Your task to perform on an android device: change the upload size in google photos Image 0: 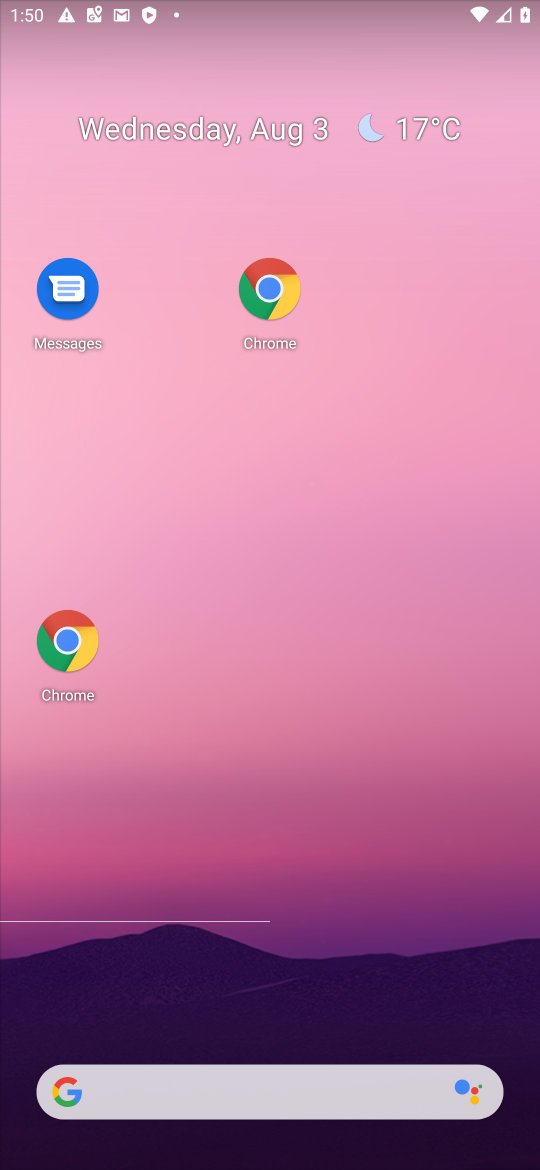
Step 0: drag from (367, 926) to (362, 422)
Your task to perform on an android device: change the upload size in google photos Image 1: 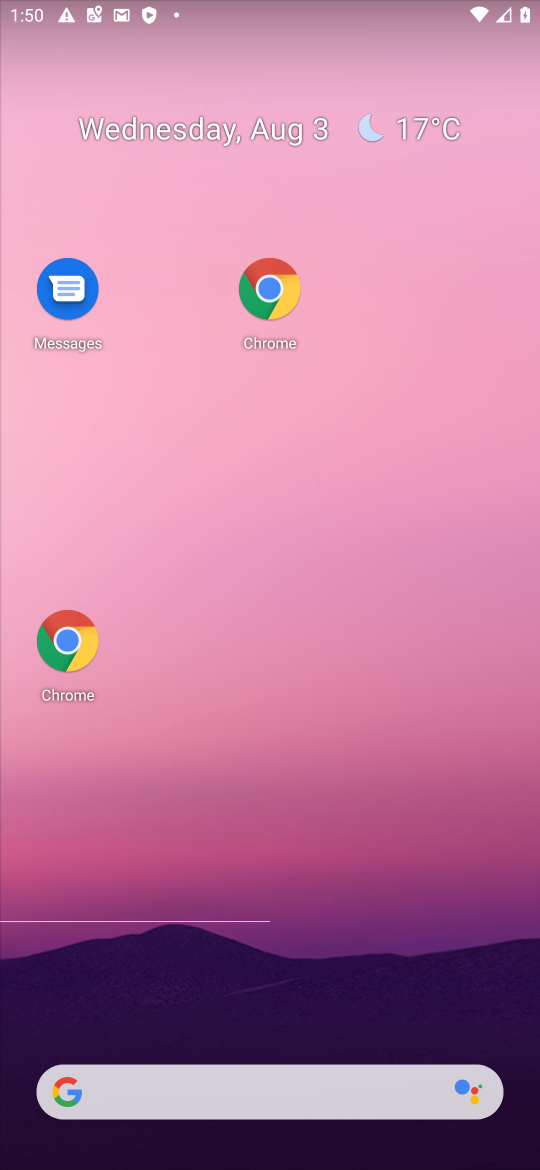
Step 1: drag from (354, 930) to (291, 194)
Your task to perform on an android device: change the upload size in google photos Image 2: 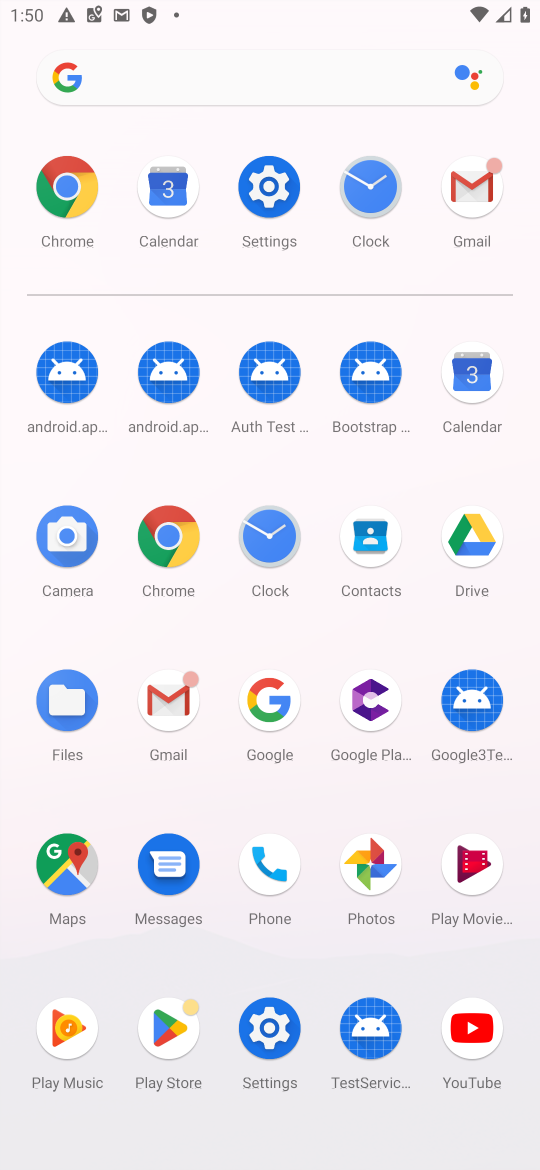
Step 2: click (347, 869)
Your task to perform on an android device: change the upload size in google photos Image 3: 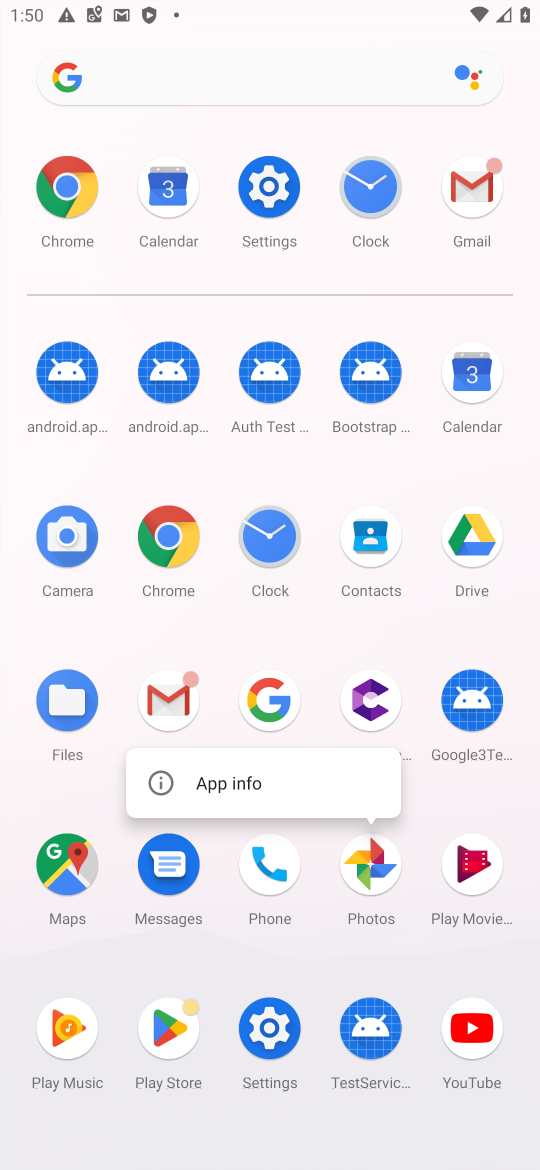
Step 3: click (347, 869)
Your task to perform on an android device: change the upload size in google photos Image 4: 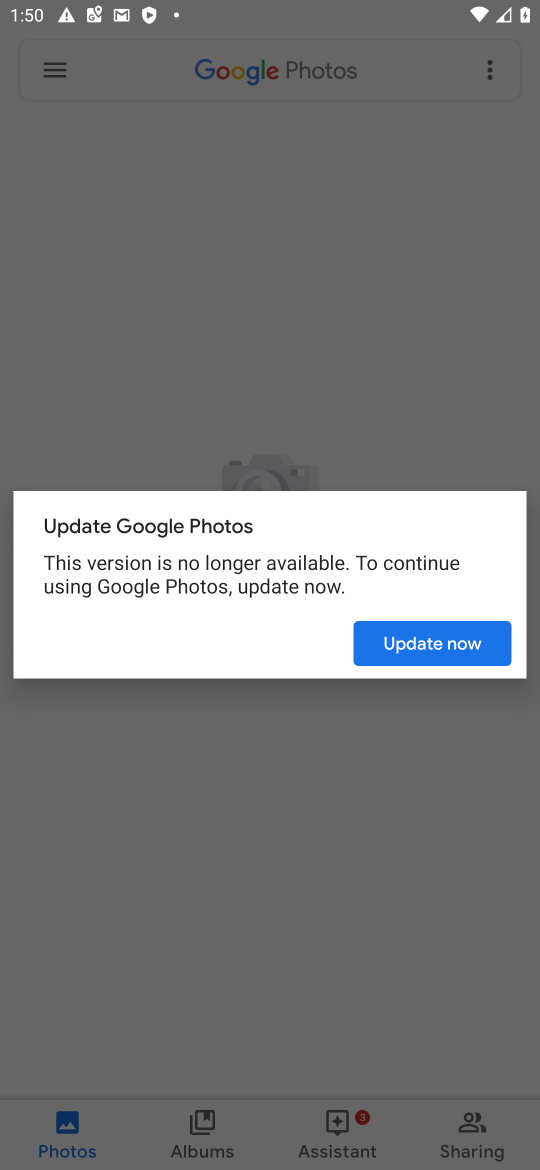
Step 4: click (423, 652)
Your task to perform on an android device: change the upload size in google photos Image 5: 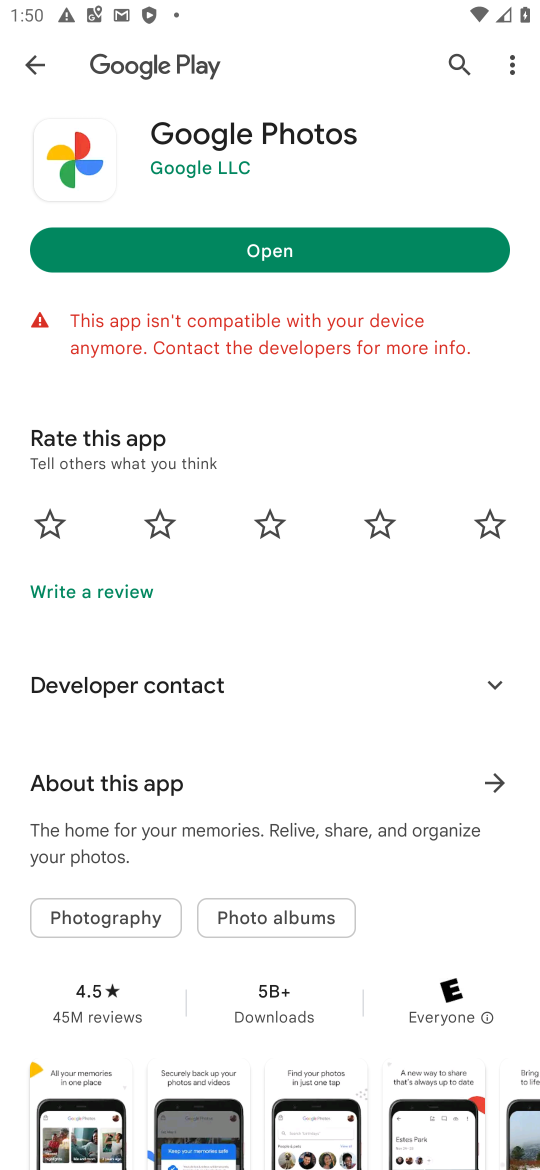
Step 5: click (330, 258)
Your task to perform on an android device: change the upload size in google photos Image 6: 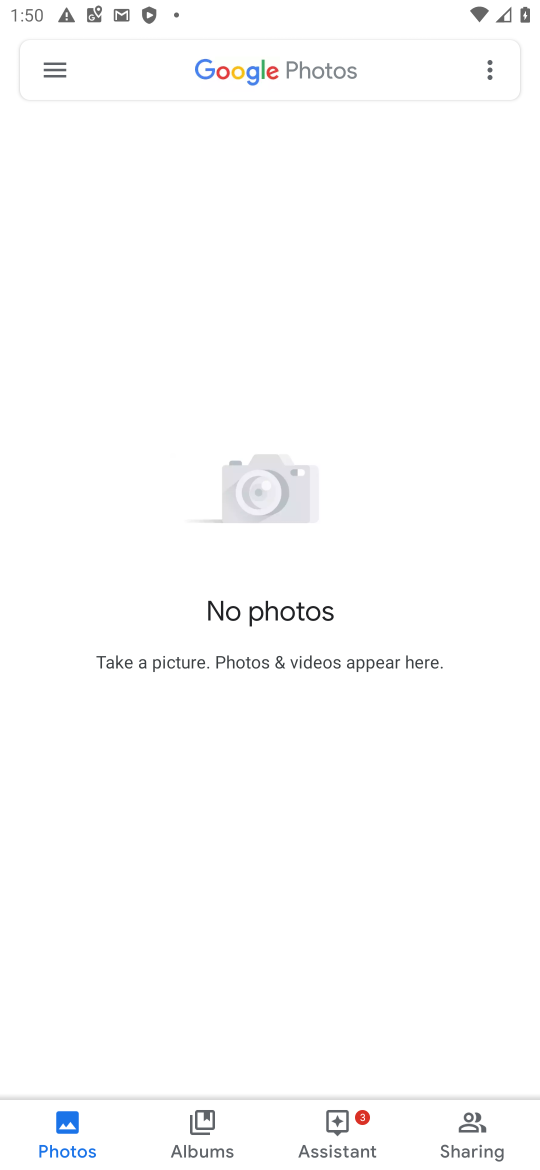
Step 6: click (64, 84)
Your task to perform on an android device: change the upload size in google photos Image 7: 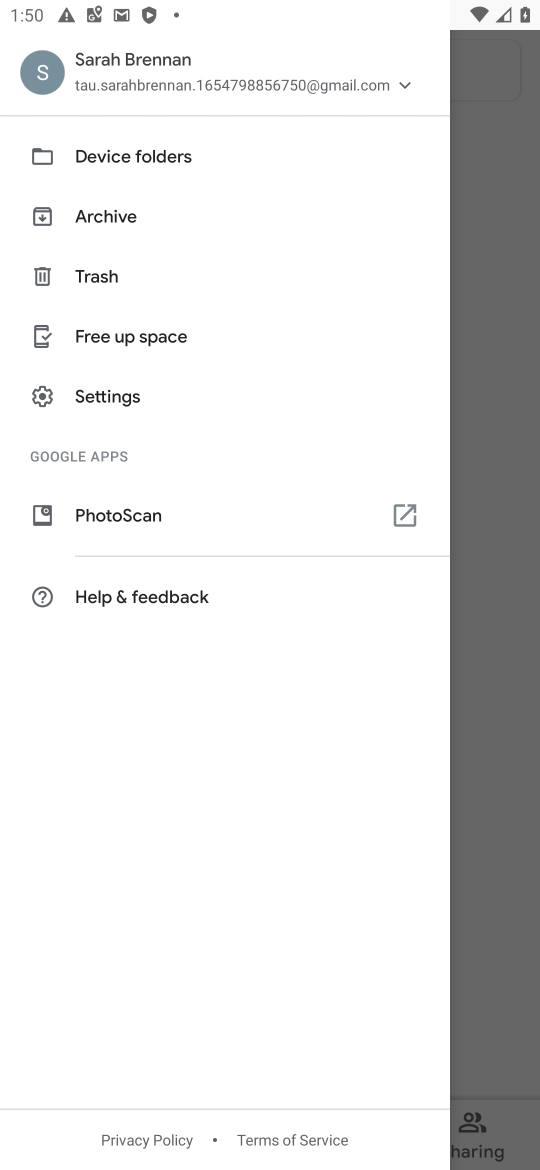
Step 7: click (104, 400)
Your task to perform on an android device: change the upload size in google photos Image 8: 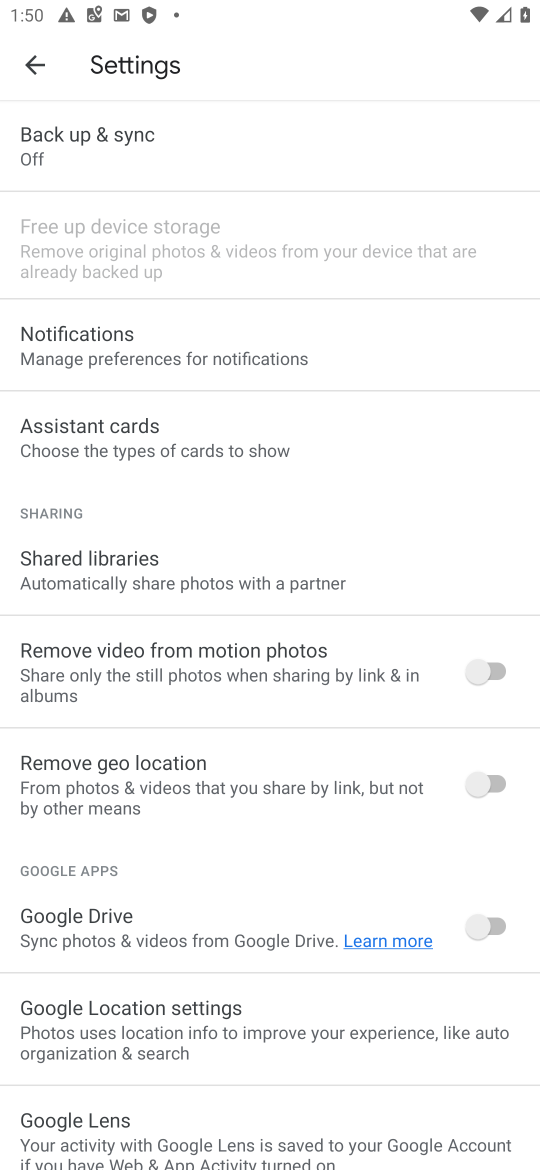
Step 8: task complete